Your task to perform on an android device: turn notification dots on Image 0: 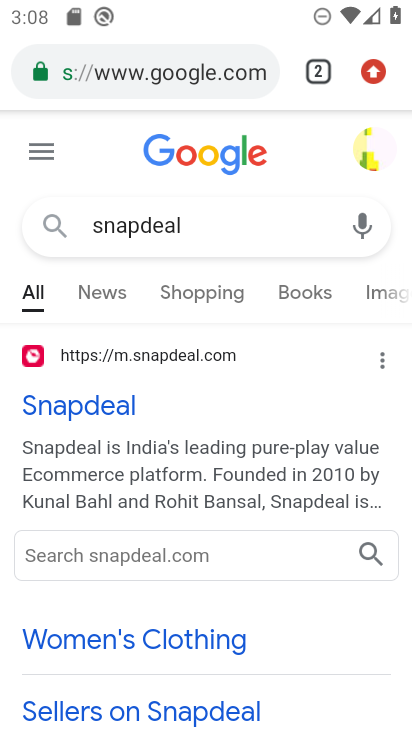
Step 0: press home button
Your task to perform on an android device: turn notification dots on Image 1: 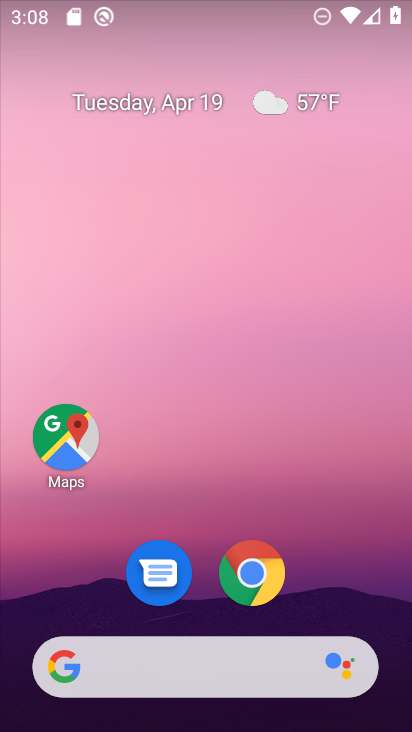
Step 1: drag from (370, 606) to (55, 43)
Your task to perform on an android device: turn notification dots on Image 2: 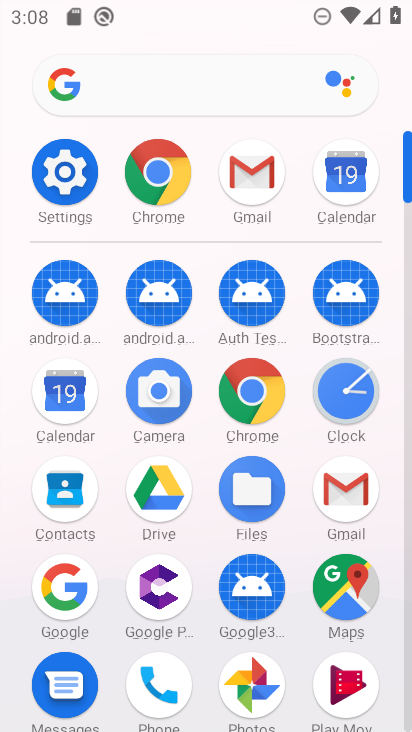
Step 2: click (62, 184)
Your task to perform on an android device: turn notification dots on Image 3: 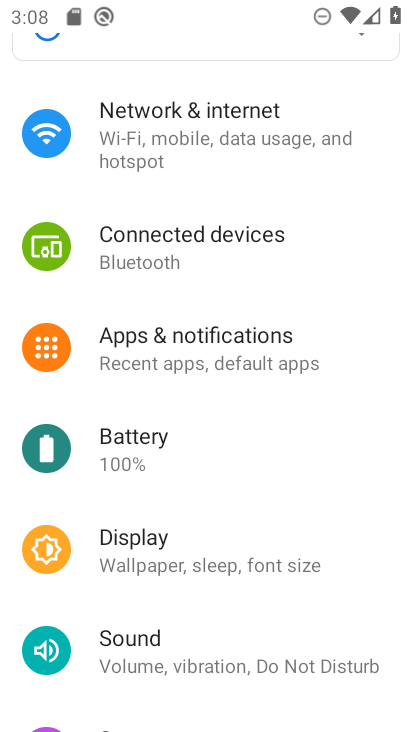
Step 3: click (191, 335)
Your task to perform on an android device: turn notification dots on Image 4: 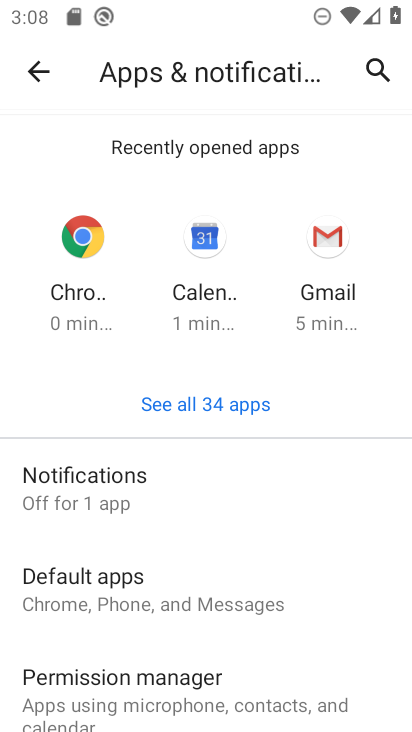
Step 4: click (86, 493)
Your task to perform on an android device: turn notification dots on Image 5: 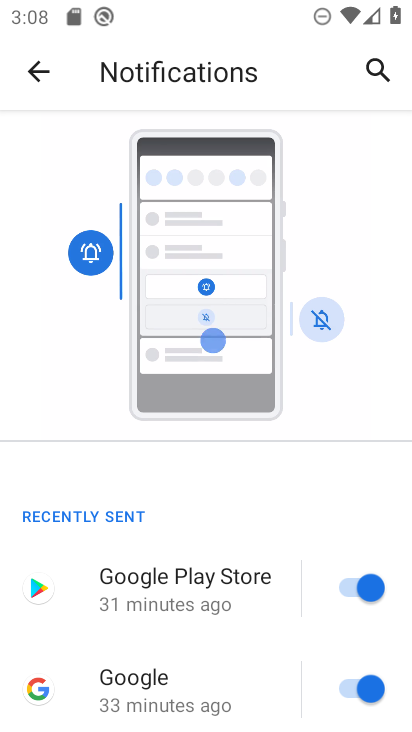
Step 5: drag from (216, 610) to (199, 146)
Your task to perform on an android device: turn notification dots on Image 6: 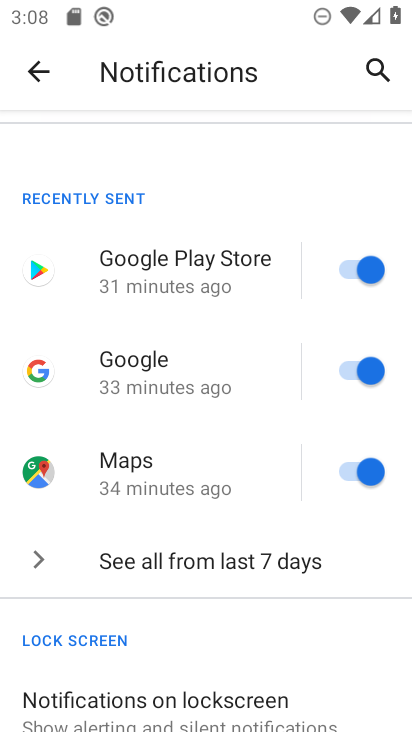
Step 6: drag from (182, 558) to (182, 172)
Your task to perform on an android device: turn notification dots on Image 7: 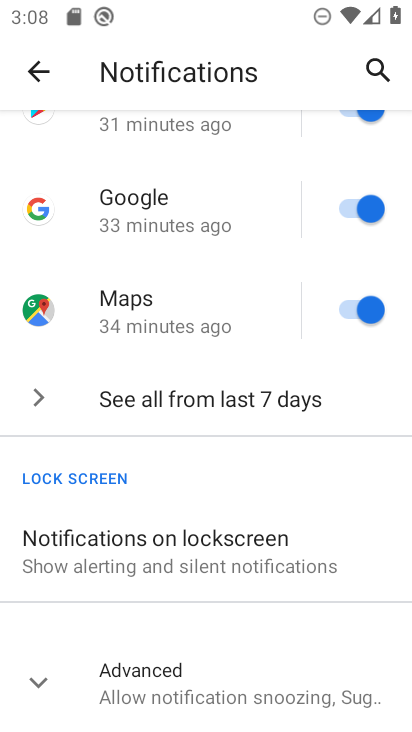
Step 7: click (34, 693)
Your task to perform on an android device: turn notification dots on Image 8: 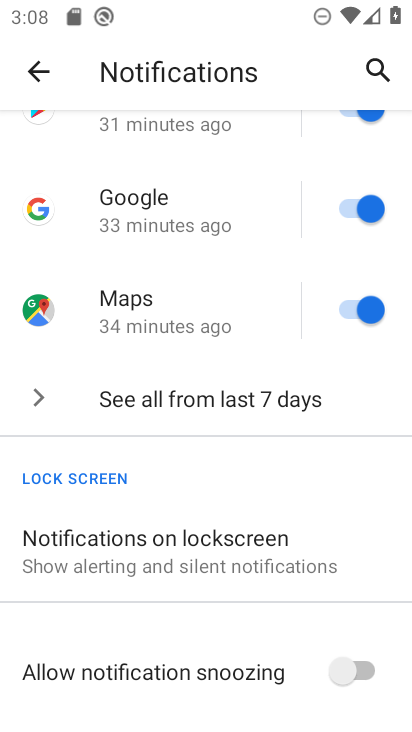
Step 8: task complete